Your task to perform on an android device: turn off wifi Image 0: 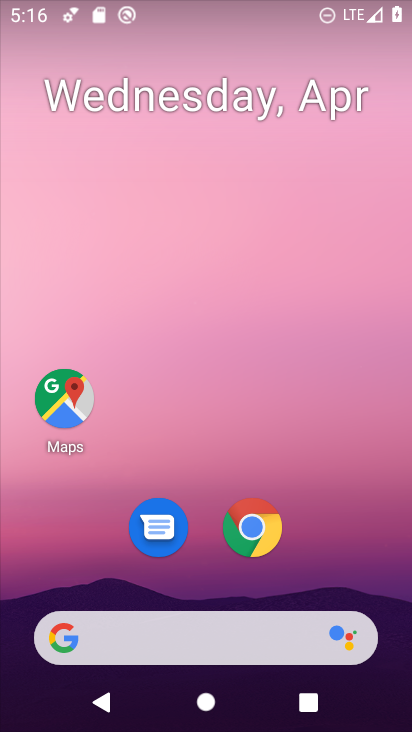
Step 0: drag from (353, 542) to (305, 10)
Your task to perform on an android device: turn off wifi Image 1: 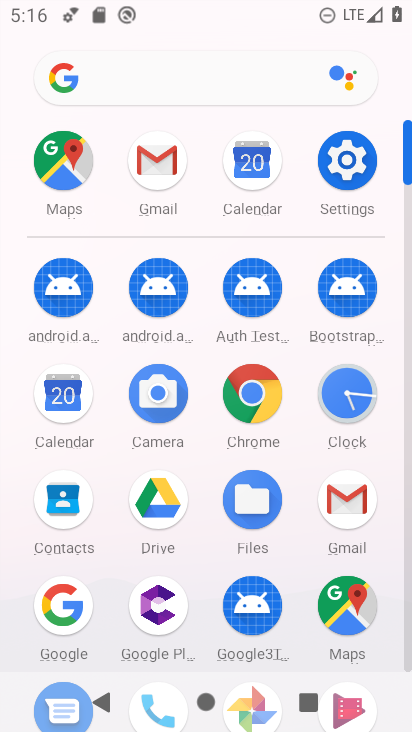
Step 1: click (337, 168)
Your task to perform on an android device: turn off wifi Image 2: 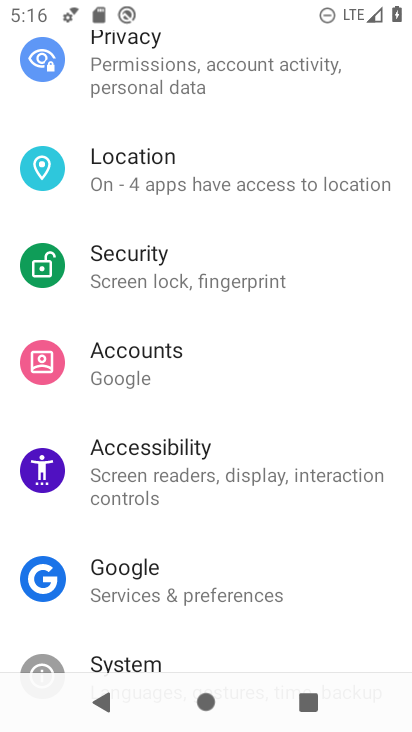
Step 2: drag from (314, 159) to (303, 510)
Your task to perform on an android device: turn off wifi Image 3: 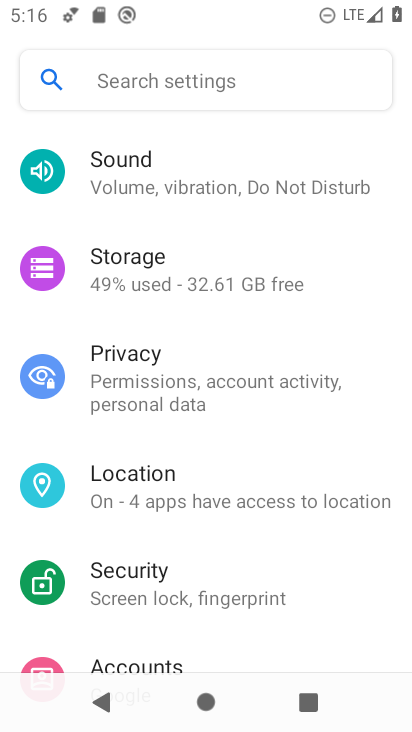
Step 3: drag from (317, 226) to (323, 565)
Your task to perform on an android device: turn off wifi Image 4: 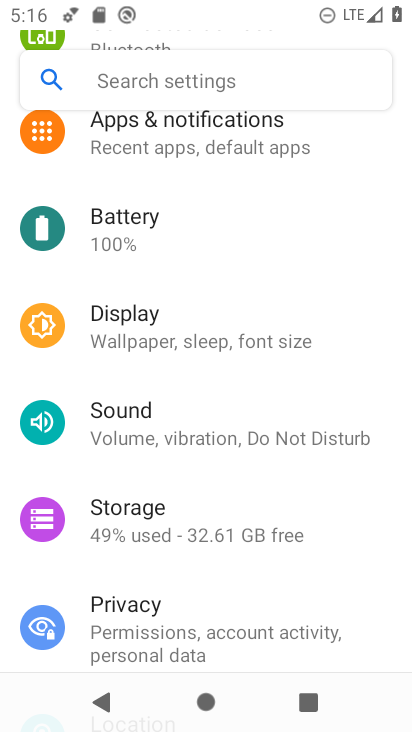
Step 4: drag from (313, 206) to (326, 594)
Your task to perform on an android device: turn off wifi Image 5: 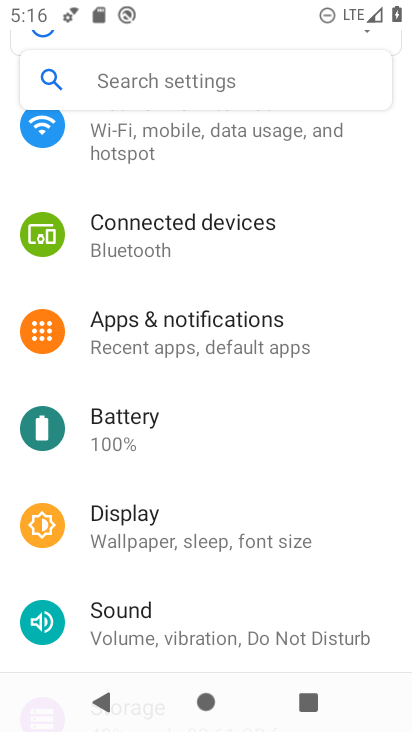
Step 5: drag from (293, 161) to (298, 487)
Your task to perform on an android device: turn off wifi Image 6: 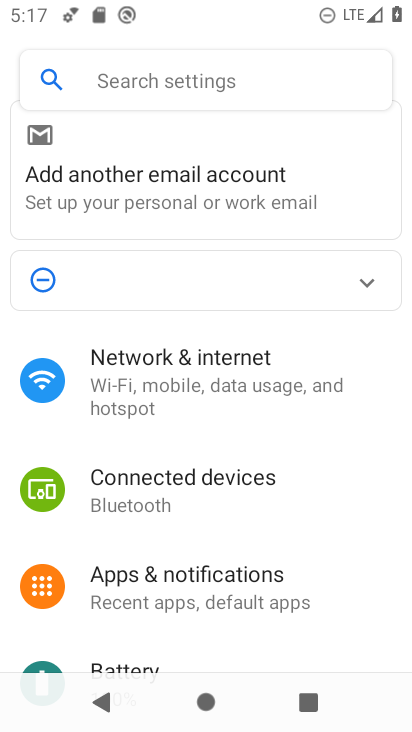
Step 6: click (159, 388)
Your task to perform on an android device: turn off wifi Image 7: 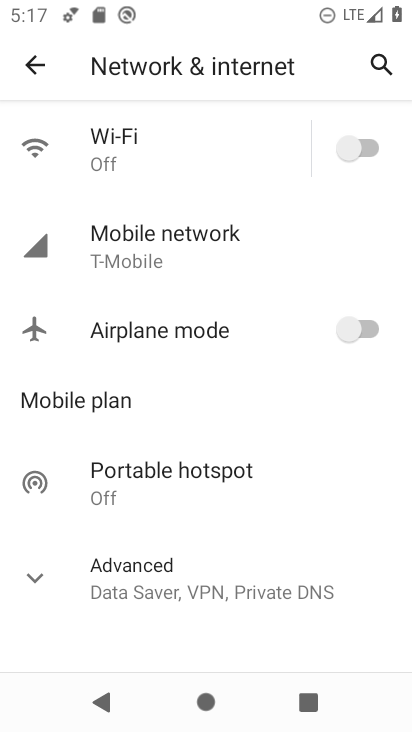
Step 7: task complete